Your task to perform on an android device: open app "LiveIn - Share Your Moment" (install if not already installed), go to login, and select forgot password Image 0: 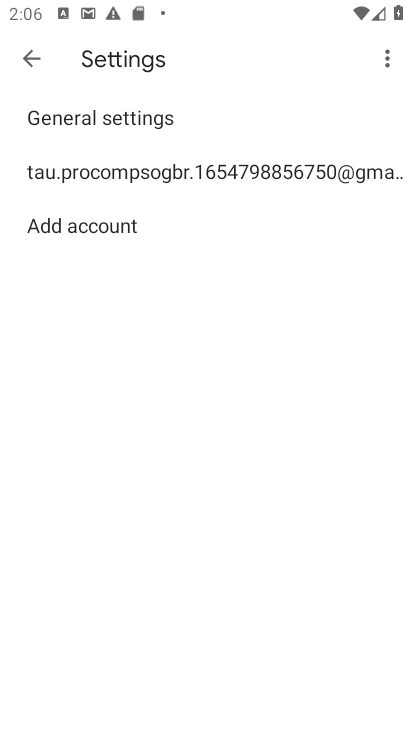
Step 0: press home button
Your task to perform on an android device: open app "LiveIn - Share Your Moment" (install if not already installed), go to login, and select forgot password Image 1: 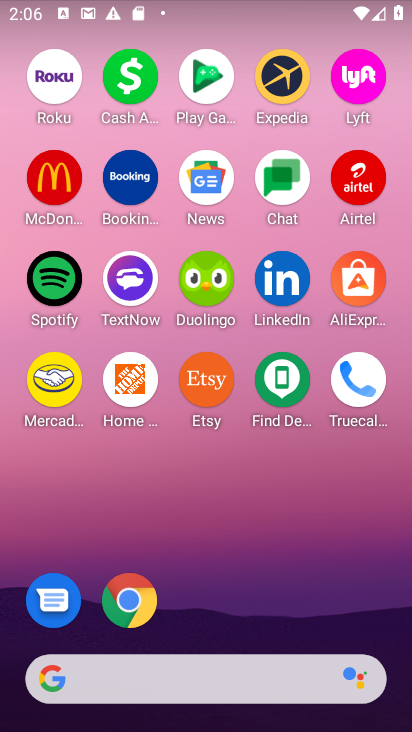
Step 1: drag from (231, 615) to (257, 47)
Your task to perform on an android device: open app "LiveIn - Share Your Moment" (install if not already installed), go to login, and select forgot password Image 2: 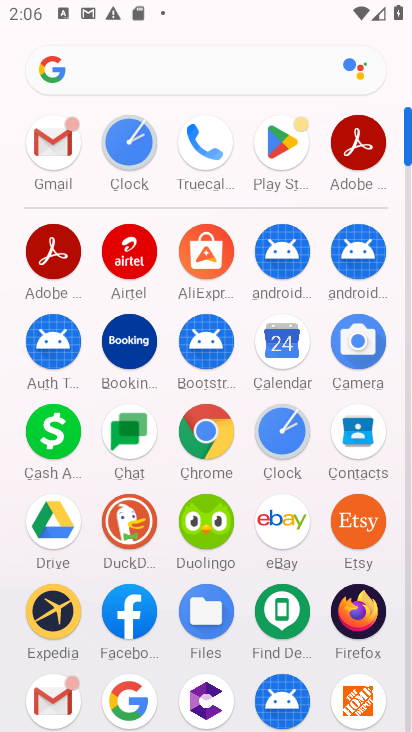
Step 2: click (276, 127)
Your task to perform on an android device: open app "LiveIn - Share Your Moment" (install if not already installed), go to login, and select forgot password Image 3: 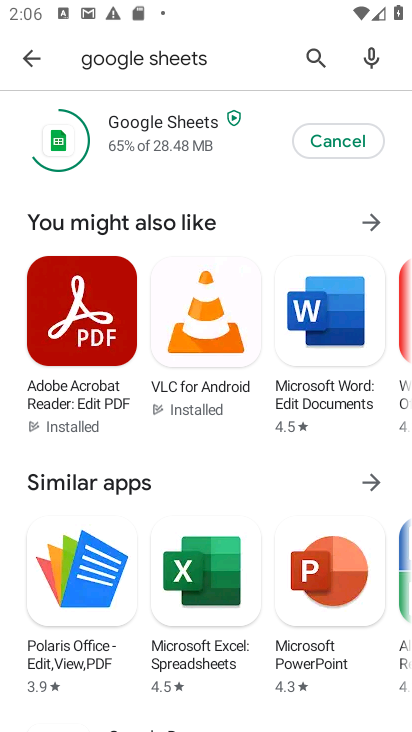
Step 3: click (321, 75)
Your task to perform on an android device: open app "LiveIn - Share Your Moment" (install if not already installed), go to login, and select forgot password Image 4: 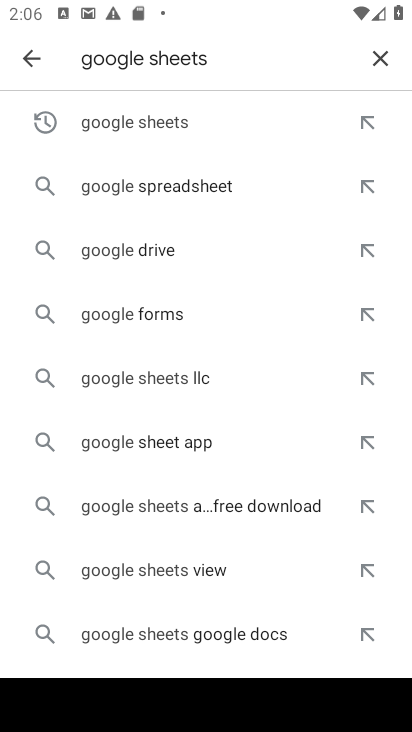
Step 4: click (372, 68)
Your task to perform on an android device: open app "LiveIn - Share Your Moment" (install if not already installed), go to login, and select forgot password Image 5: 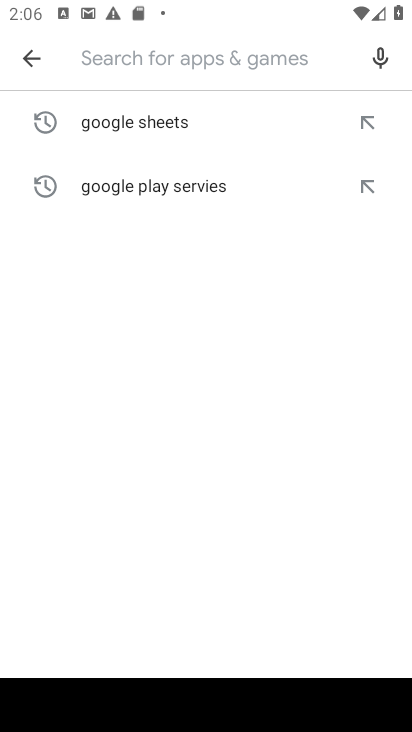
Step 5: type "Livein"
Your task to perform on an android device: open app "LiveIn - Share Your Moment" (install if not already installed), go to login, and select forgot password Image 6: 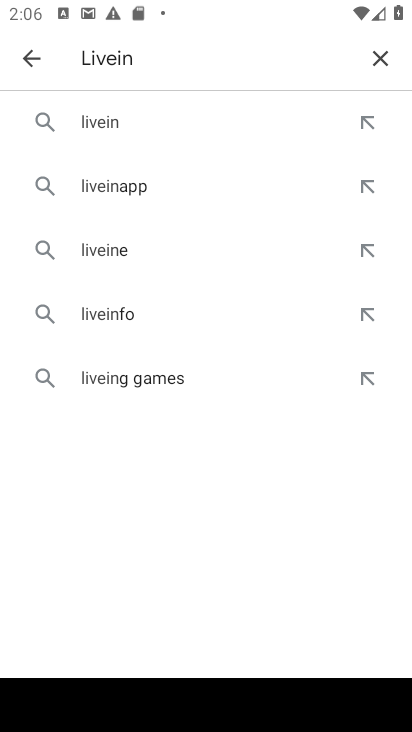
Step 6: click (217, 143)
Your task to perform on an android device: open app "LiveIn - Share Your Moment" (install if not already installed), go to login, and select forgot password Image 7: 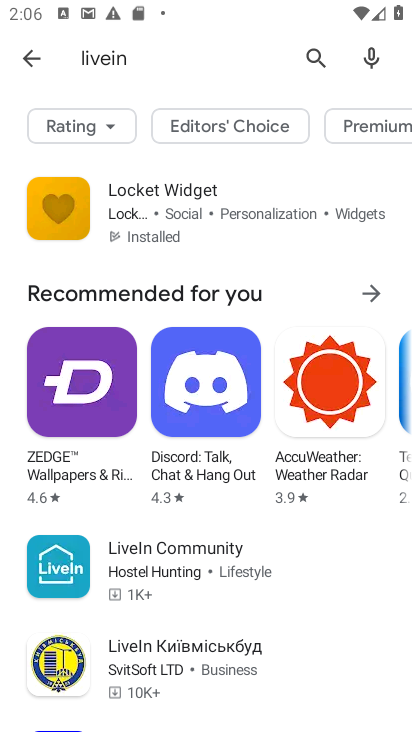
Step 7: click (184, 223)
Your task to perform on an android device: open app "LiveIn - Share Your Moment" (install if not already installed), go to login, and select forgot password Image 8: 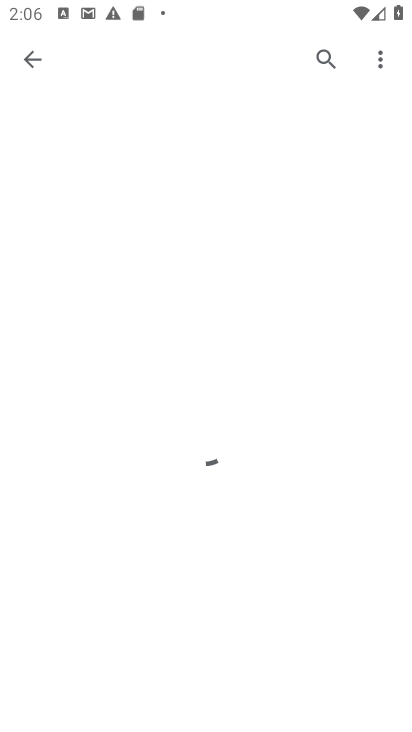
Step 8: task complete